Your task to perform on an android device: Open Google Chrome and open the bookmarks view Image 0: 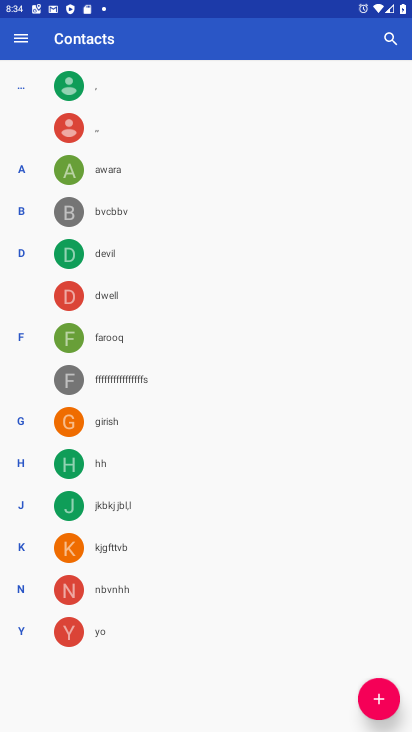
Step 0: press home button
Your task to perform on an android device: Open Google Chrome and open the bookmarks view Image 1: 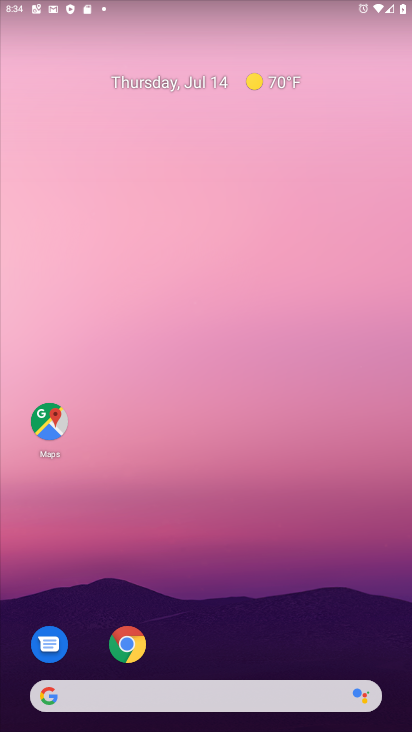
Step 1: drag from (254, 641) to (262, 218)
Your task to perform on an android device: Open Google Chrome and open the bookmarks view Image 2: 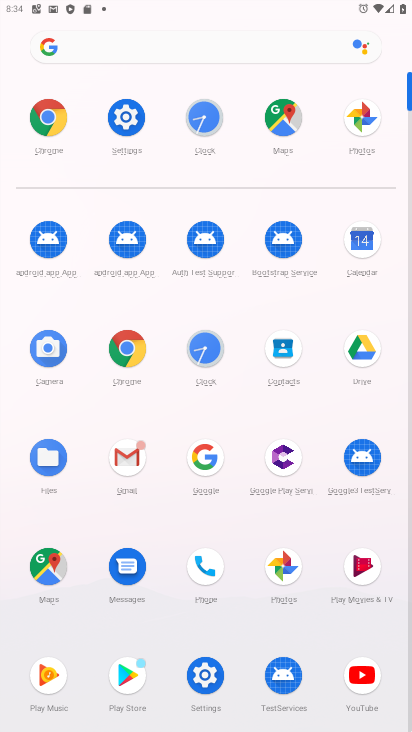
Step 2: click (135, 346)
Your task to perform on an android device: Open Google Chrome and open the bookmarks view Image 3: 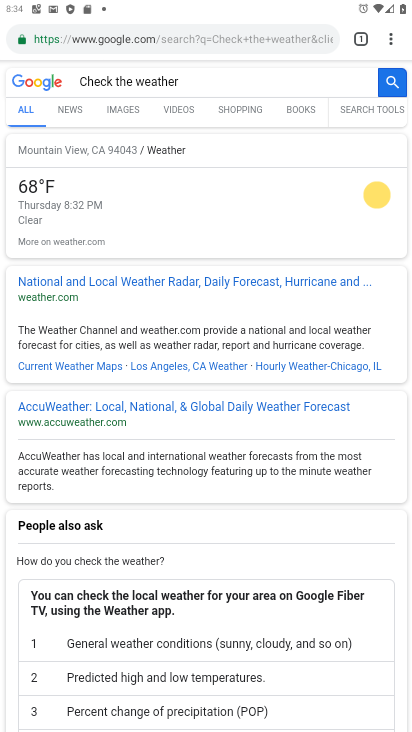
Step 3: click (398, 38)
Your task to perform on an android device: Open Google Chrome and open the bookmarks view Image 4: 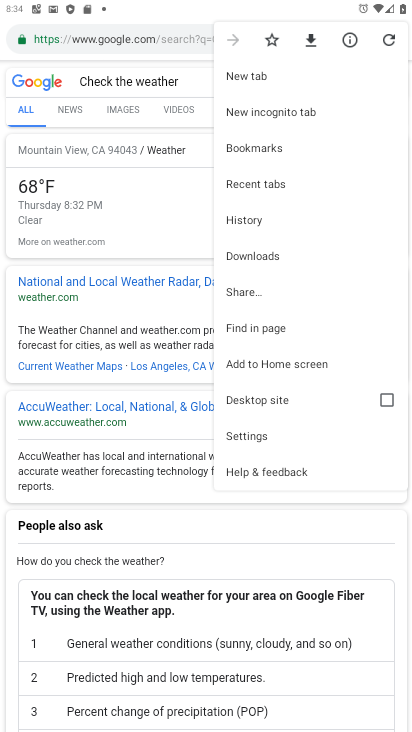
Step 4: click (254, 154)
Your task to perform on an android device: Open Google Chrome and open the bookmarks view Image 5: 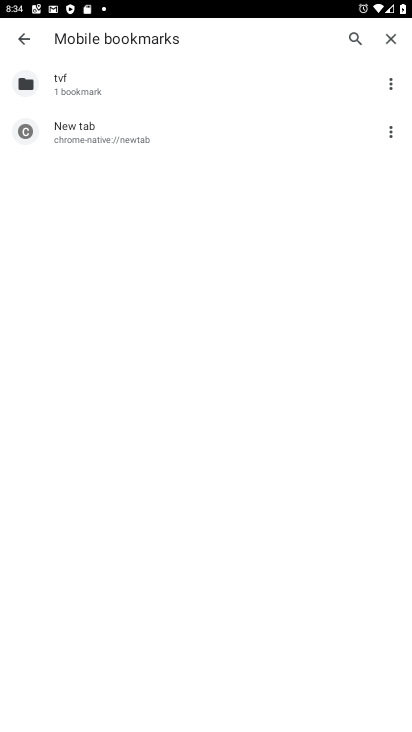
Step 5: task complete